Your task to perform on an android device: change alarm snooze length Image 0: 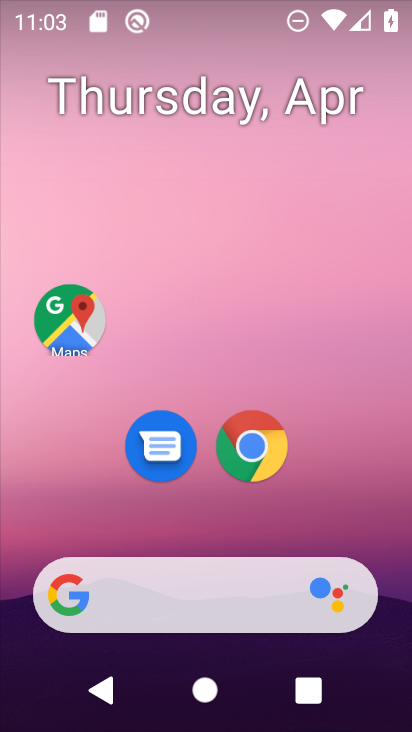
Step 0: drag from (228, 454) to (257, 75)
Your task to perform on an android device: change alarm snooze length Image 1: 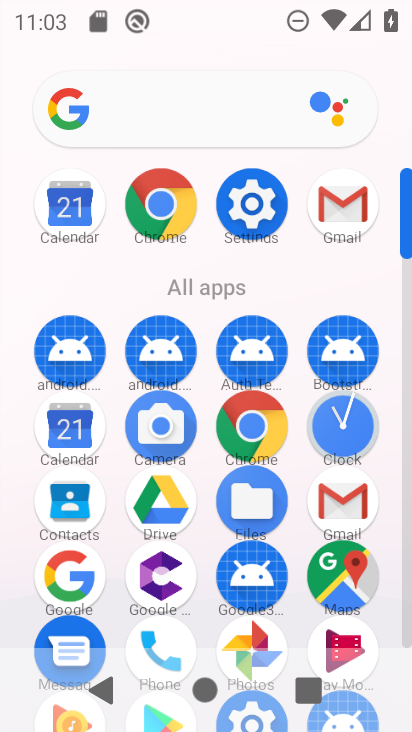
Step 1: click (345, 439)
Your task to perform on an android device: change alarm snooze length Image 2: 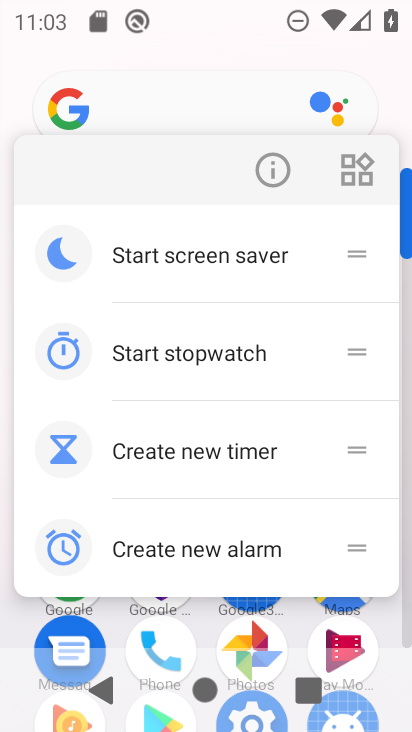
Step 2: click (272, 159)
Your task to perform on an android device: change alarm snooze length Image 3: 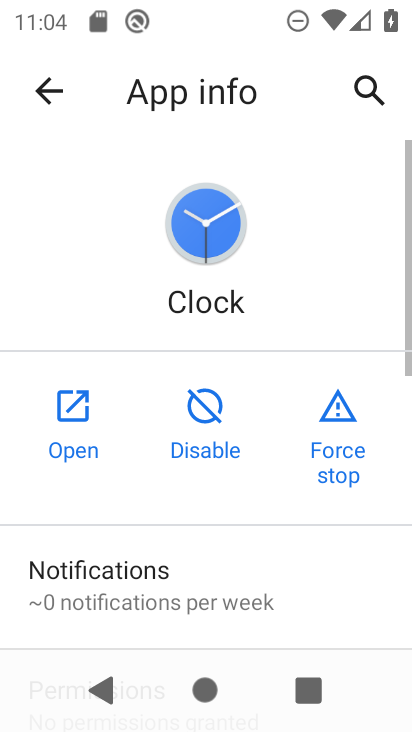
Step 3: click (68, 459)
Your task to perform on an android device: change alarm snooze length Image 4: 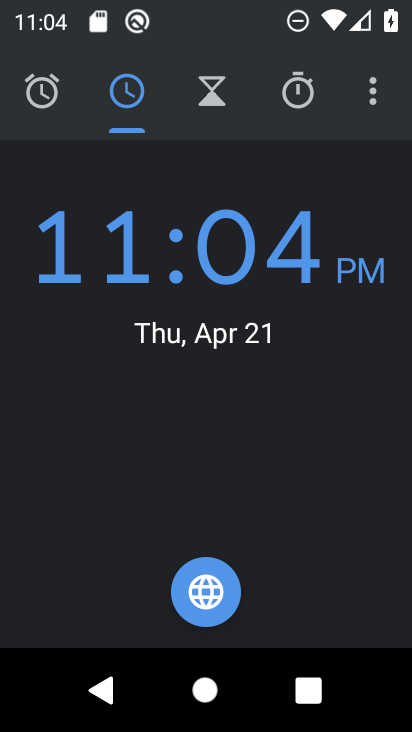
Step 4: click (299, 106)
Your task to perform on an android device: change alarm snooze length Image 5: 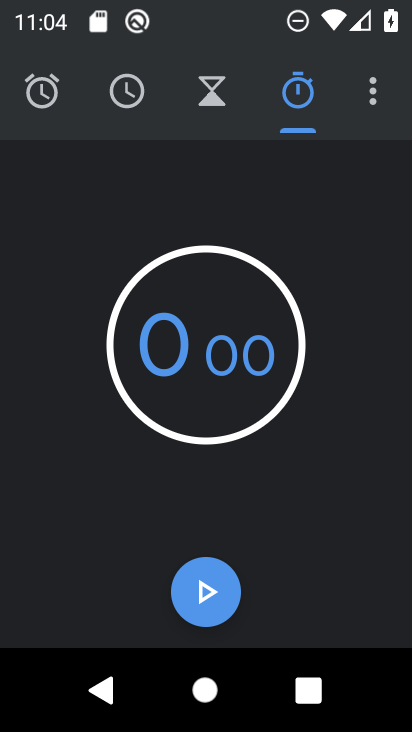
Step 5: click (366, 104)
Your task to perform on an android device: change alarm snooze length Image 6: 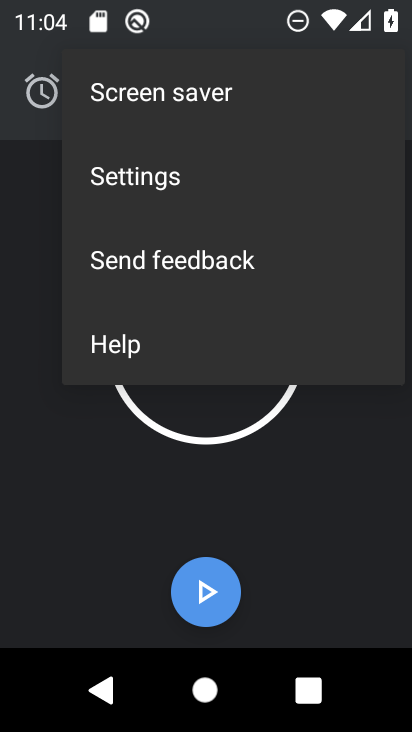
Step 6: click (190, 173)
Your task to perform on an android device: change alarm snooze length Image 7: 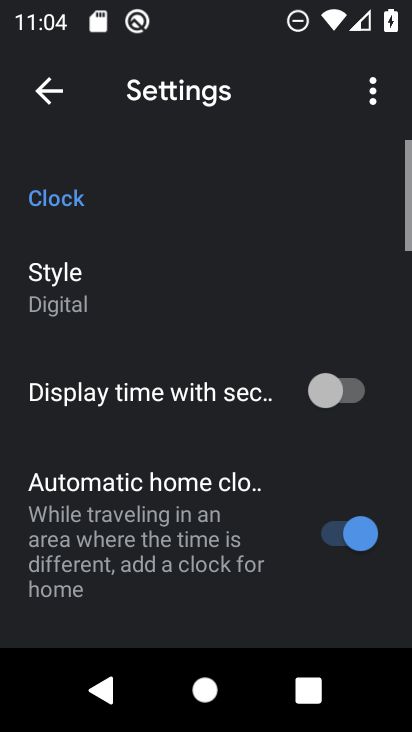
Step 7: drag from (159, 566) to (171, 270)
Your task to perform on an android device: change alarm snooze length Image 8: 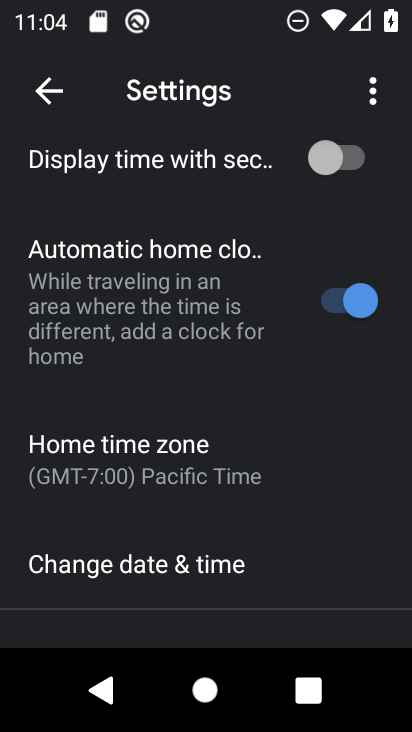
Step 8: drag from (166, 560) to (281, 246)
Your task to perform on an android device: change alarm snooze length Image 9: 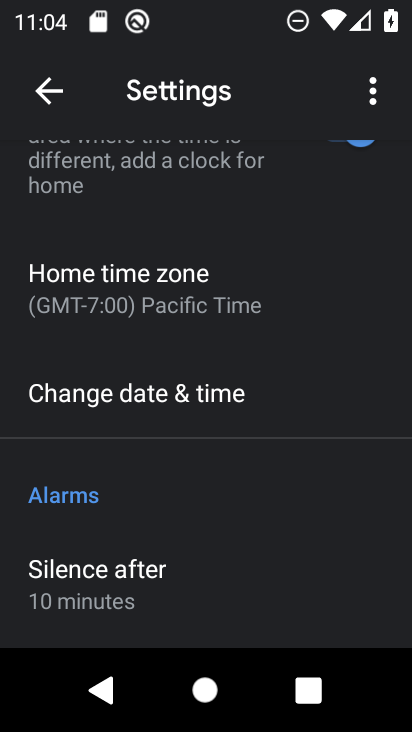
Step 9: drag from (136, 521) to (231, 273)
Your task to perform on an android device: change alarm snooze length Image 10: 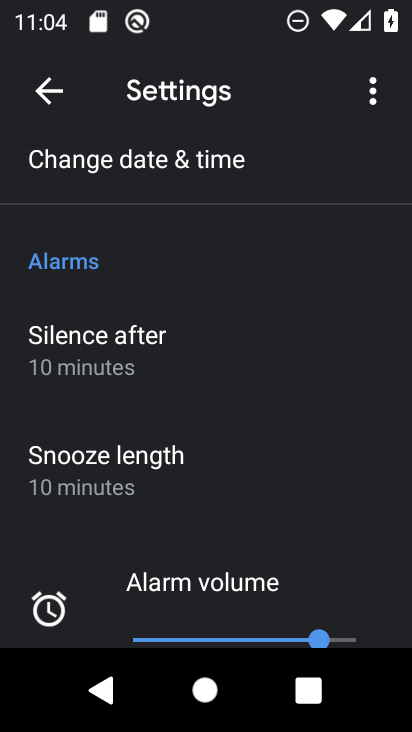
Step 10: click (180, 477)
Your task to perform on an android device: change alarm snooze length Image 11: 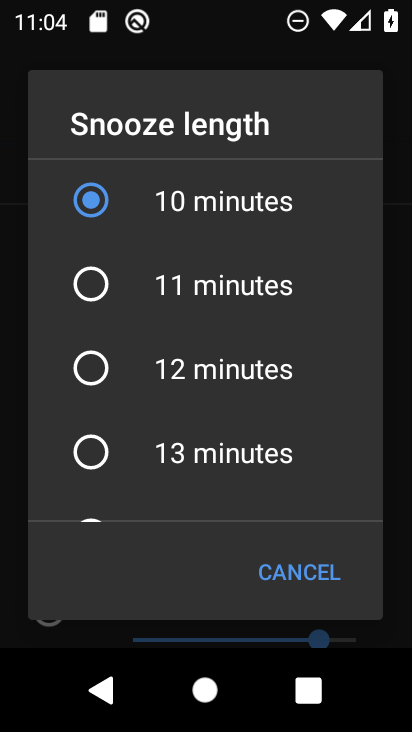
Step 11: click (192, 402)
Your task to perform on an android device: change alarm snooze length Image 12: 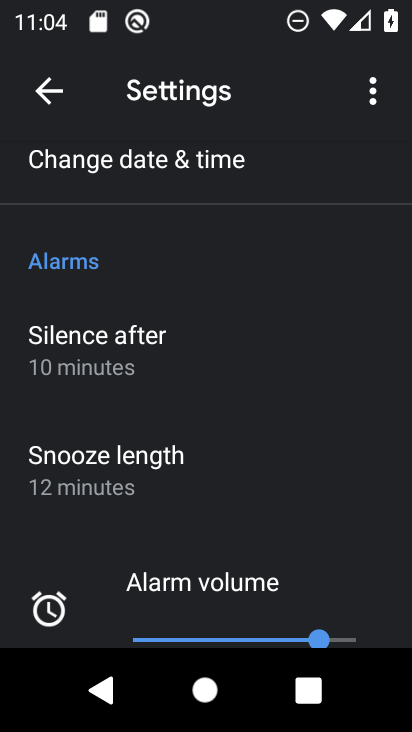
Step 12: task complete